Your task to perform on an android device: Open settings on Google Maps Image 0: 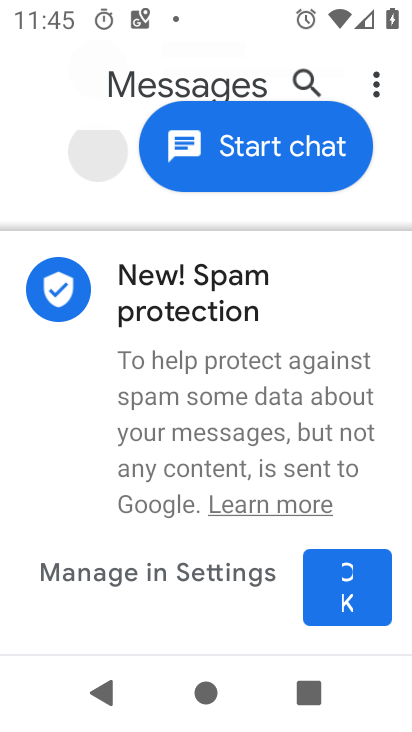
Step 0: press home button
Your task to perform on an android device: Open settings on Google Maps Image 1: 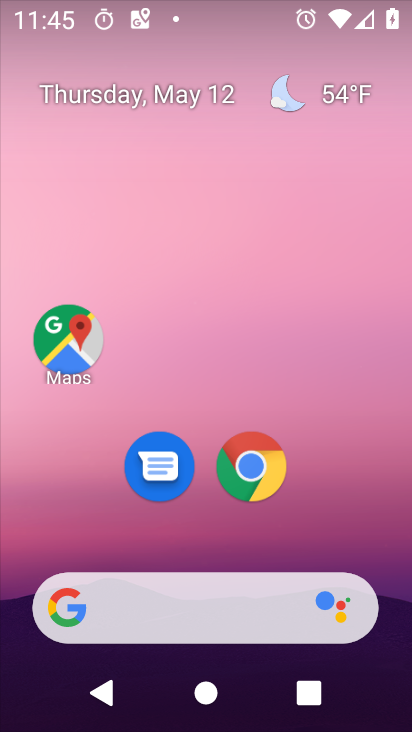
Step 1: drag from (288, 551) to (347, 161)
Your task to perform on an android device: Open settings on Google Maps Image 2: 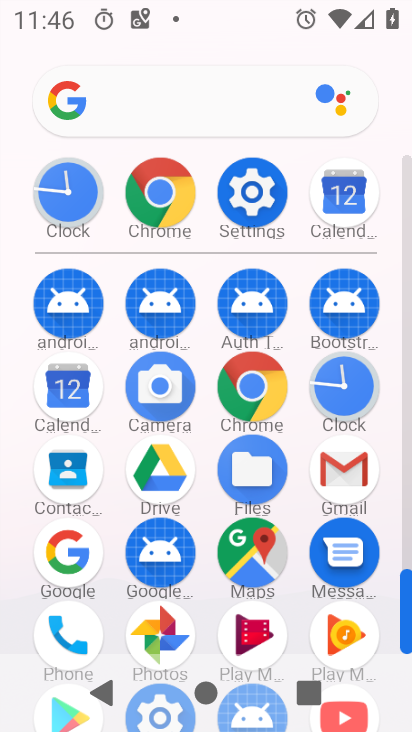
Step 2: drag from (180, 612) to (178, 374)
Your task to perform on an android device: Open settings on Google Maps Image 3: 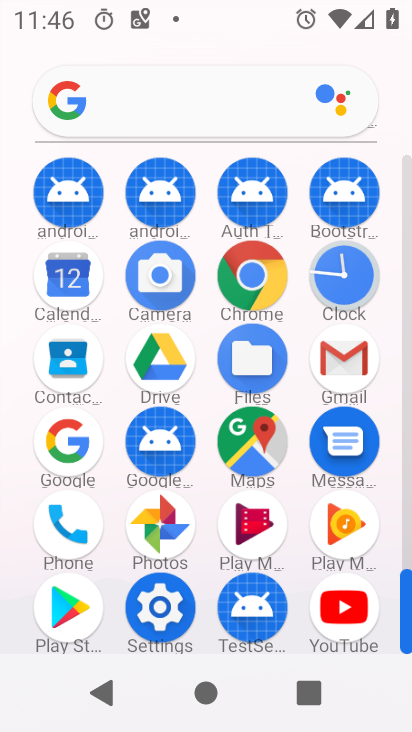
Step 3: click (262, 448)
Your task to perform on an android device: Open settings on Google Maps Image 4: 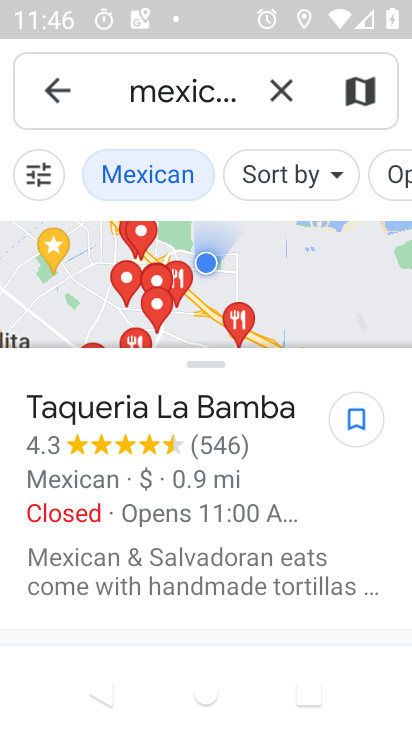
Step 4: task complete